Your task to perform on an android device: Is it going to rain today? Image 0: 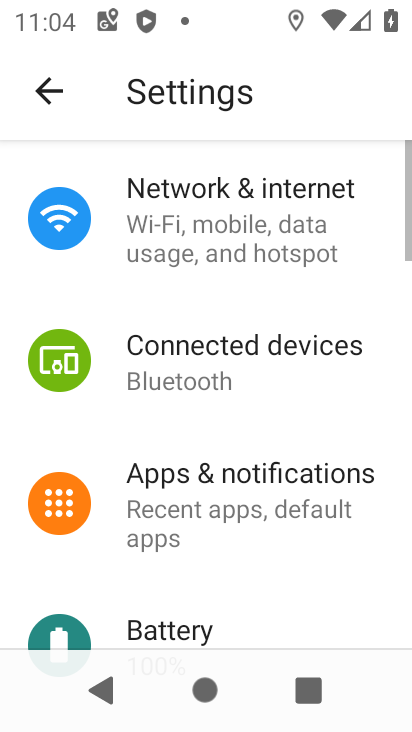
Step 0: press home button
Your task to perform on an android device: Is it going to rain today? Image 1: 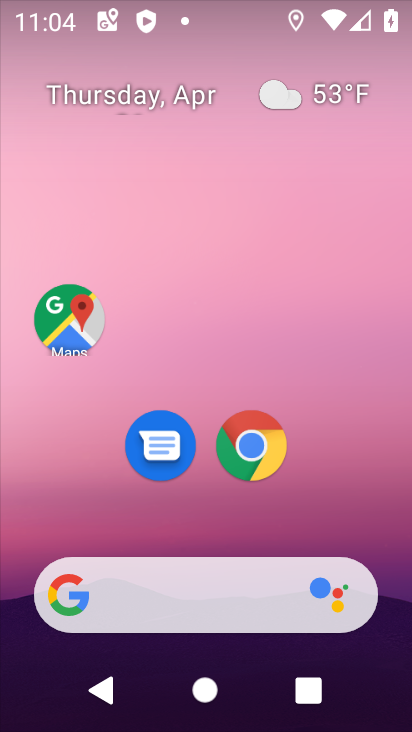
Step 1: click (328, 101)
Your task to perform on an android device: Is it going to rain today? Image 2: 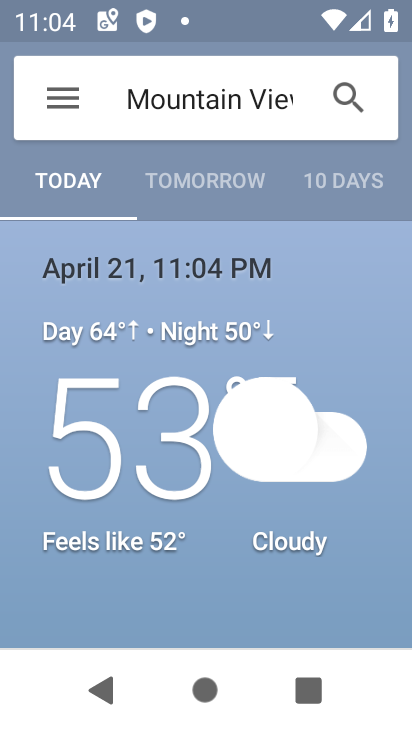
Step 2: task complete